Your task to perform on an android device: Toggle the flashlight Image 0: 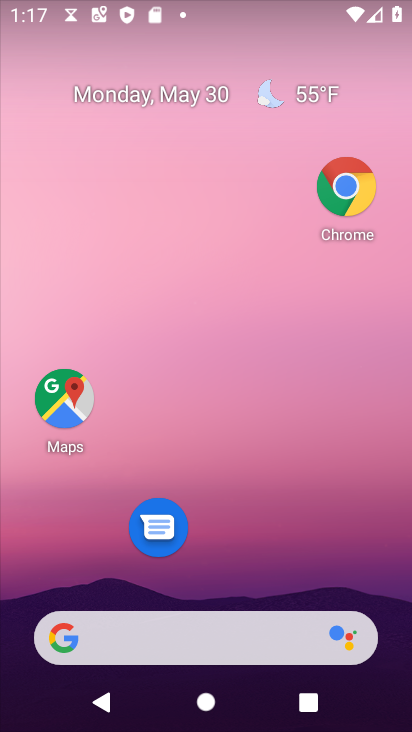
Step 0: drag from (220, 593) to (159, 46)
Your task to perform on an android device: Toggle the flashlight Image 1: 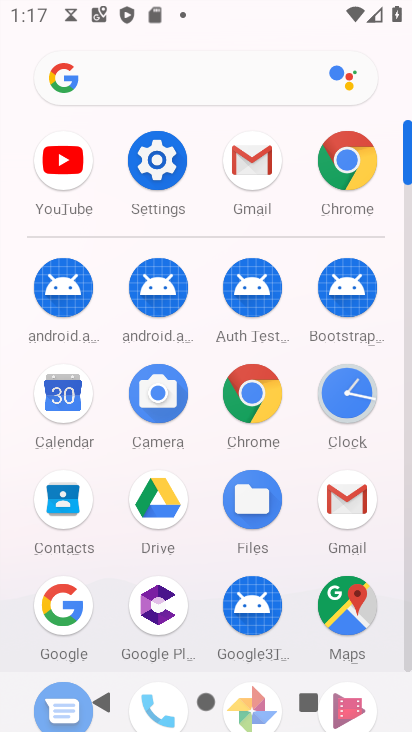
Step 1: click (147, 173)
Your task to perform on an android device: Toggle the flashlight Image 2: 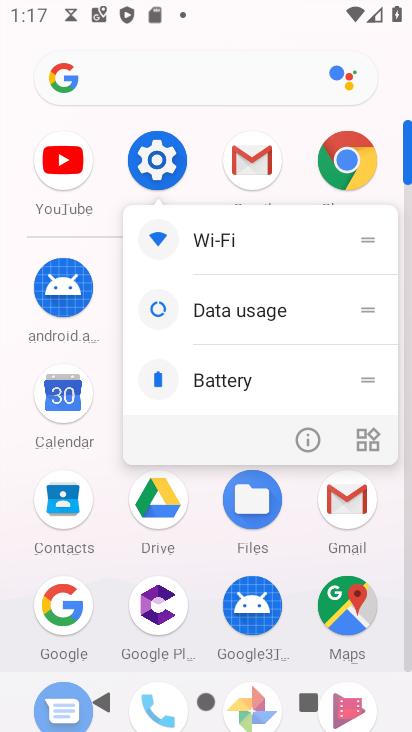
Step 2: click (311, 435)
Your task to perform on an android device: Toggle the flashlight Image 3: 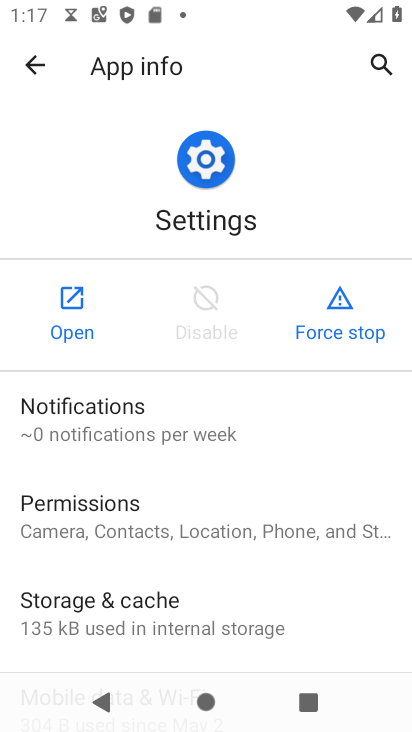
Step 3: click (47, 326)
Your task to perform on an android device: Toggle the flashlight Image 4: 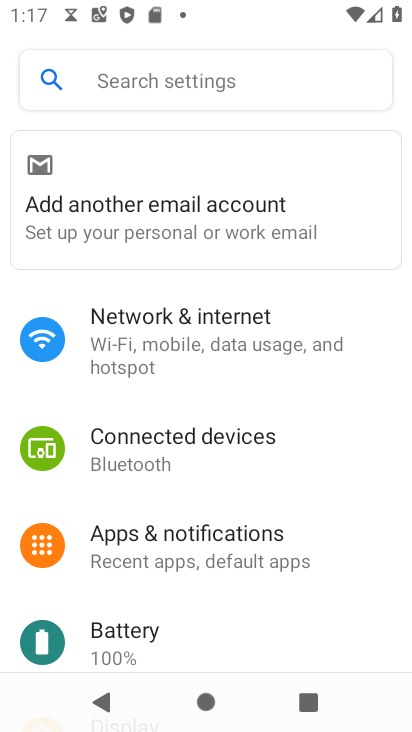
Step 4: click (124, 74)
Your task to perform on an android device: Toggle the flashlight Image 5: 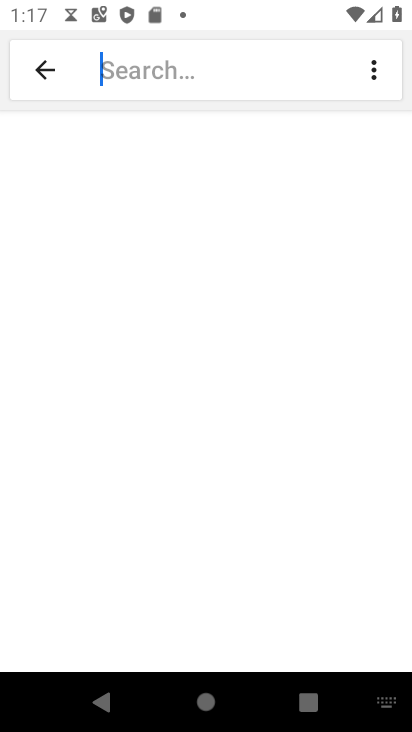
Step 5: type "flashlight"
Your task to perform on an android device: Toggle the flashlight Image 6: 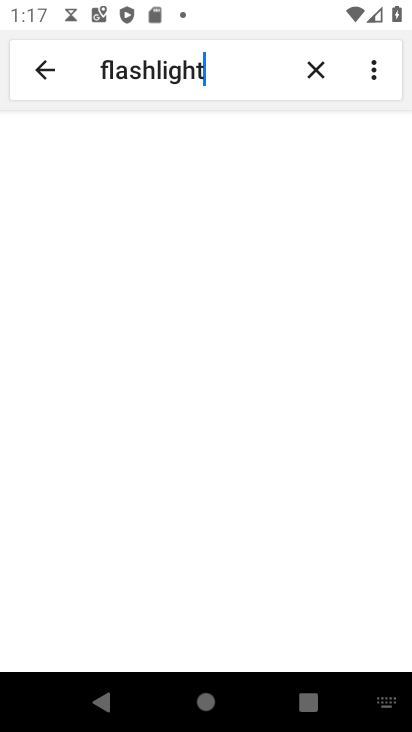
Step 6: type ""
Your task to perform on an android device: Toggle the flashlight Image 7: 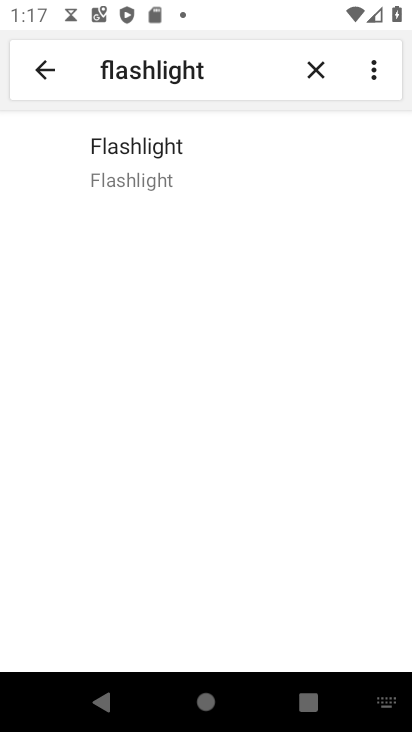
Step 7: click (188, 171)
Your task to perform on an android device: Toggle the flashlight Image 8: 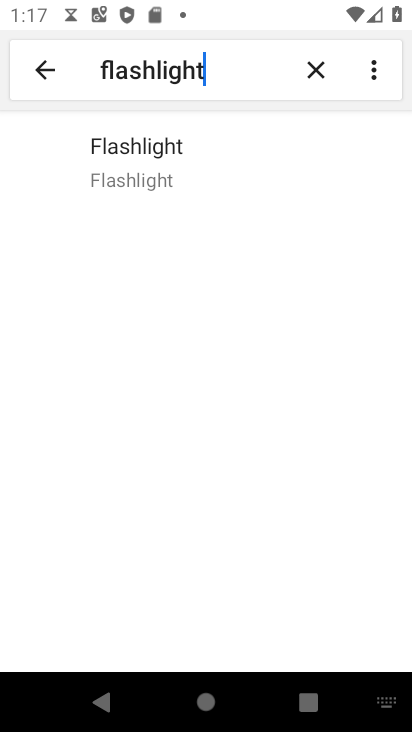
Step 8: task complete